Your task to perform on an android device: see sites visited before in the chrome app Image 0: 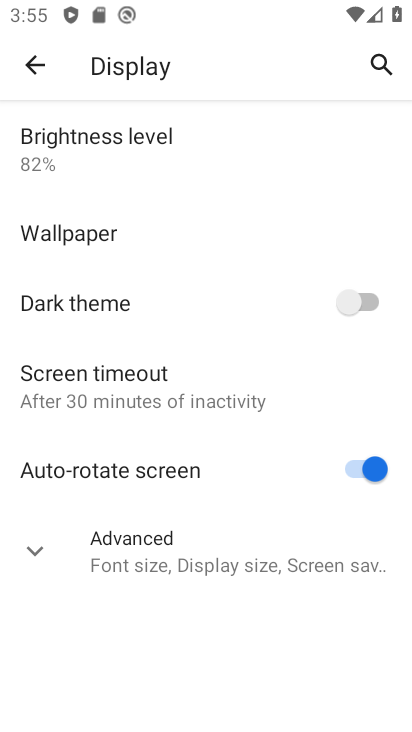
Step 0: press home button
Your task to perform on an android device: see sites visited before in the chrome app Image 1: 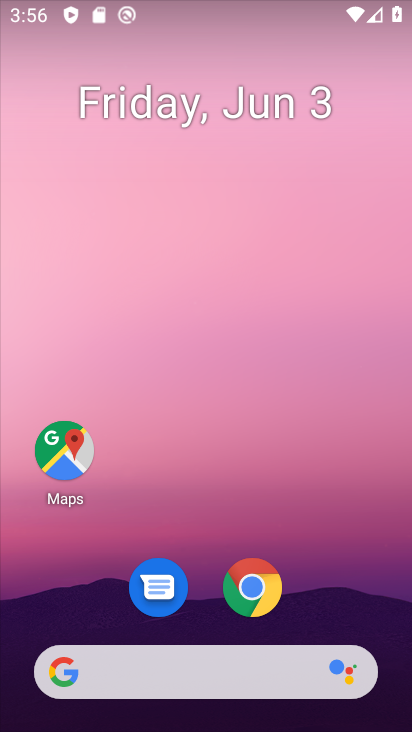
Step 1: click (252, 559)
Your task to perform on an android device: see sites visited before in the chrome app Image 2: 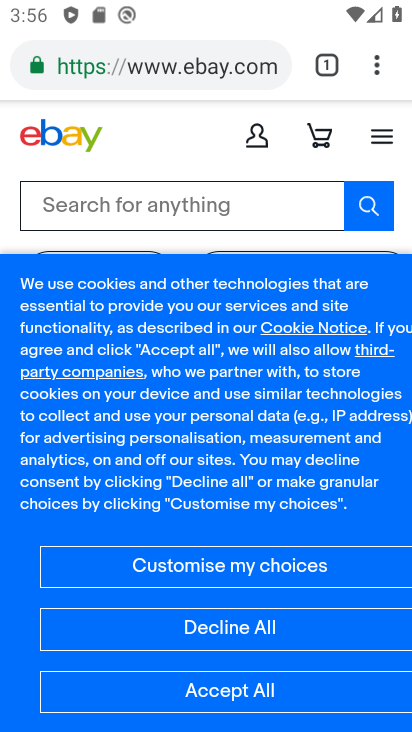
Step 2: click (396, 64)
Your task to perform on an android device: see sites visited before in the chrome app Image 3: 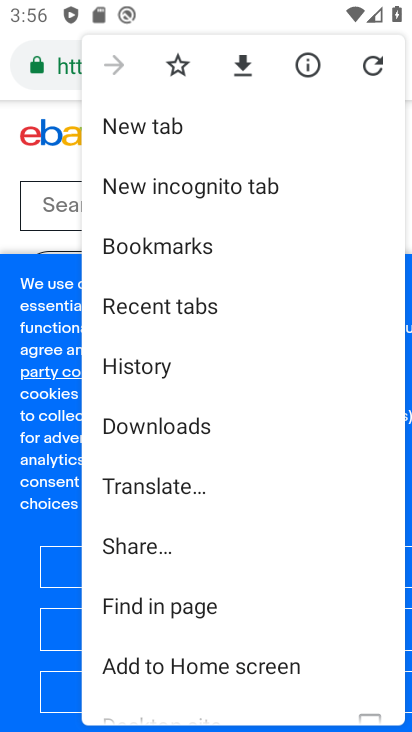
Step 3: click (251, 349)
Your task to perform on an android device: see sites visited before in the chrome app Image 4: 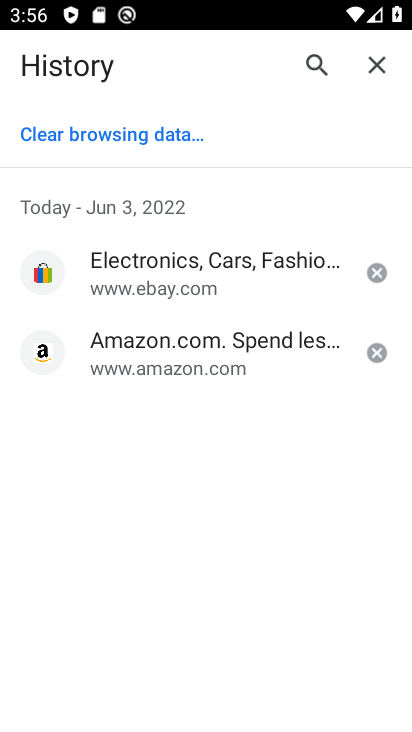
Step 4: task complete